Your task to perform on an android device: Play the last video I watched on Youtube Image 0: 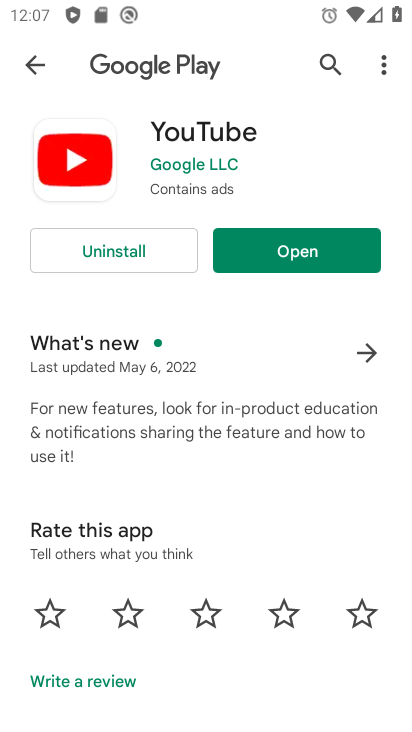
Step 0: press home button
Your task to perform on an android device: Play the last video I watched on Youtube Image 1: 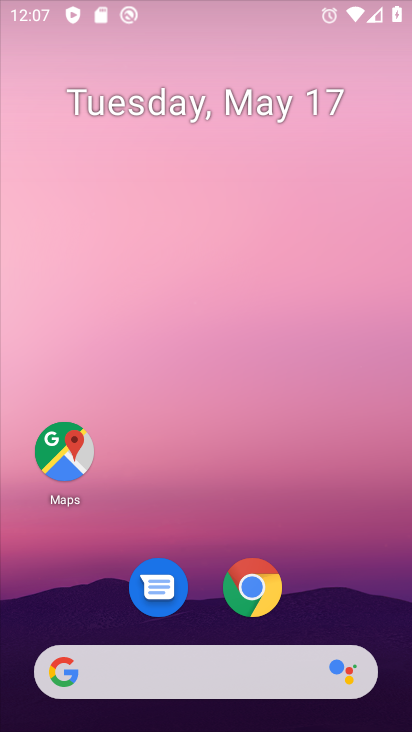
Step 1: drag from (384, 625) to (335, 189)
Your task to perform on an android device: Play the last video I watched on Youtube Image 2: 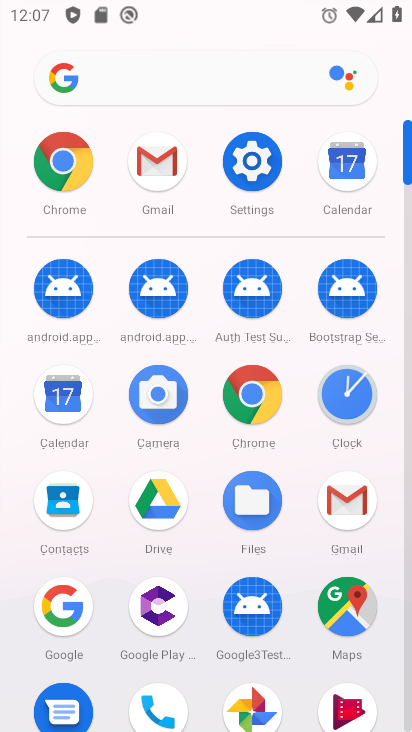
Step 2: drag from (195, 685) to (211, 181)
Your task to perform on an android device: Play the last video I watched on Youtube Image 3: 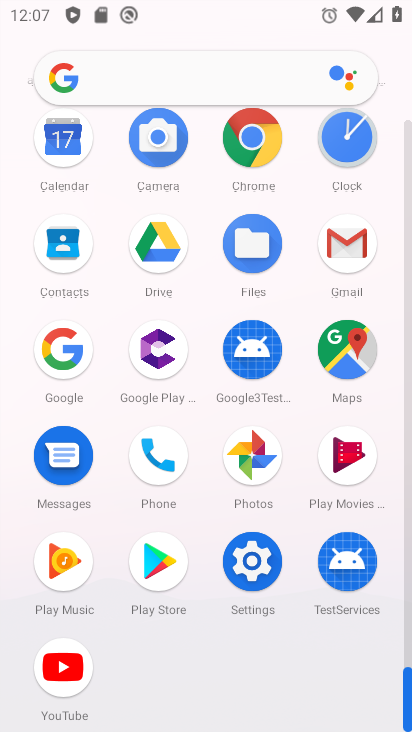
Step 3: click (66, 671)
Your task to perform on an android device: Play the last video I watched on Youtube Image 4: 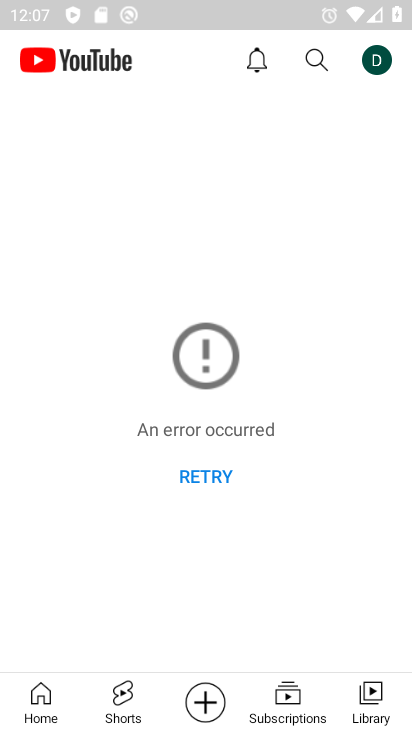
Step 4: task complete